Your task to perform on an android device: Open Reddit.com Image 0: 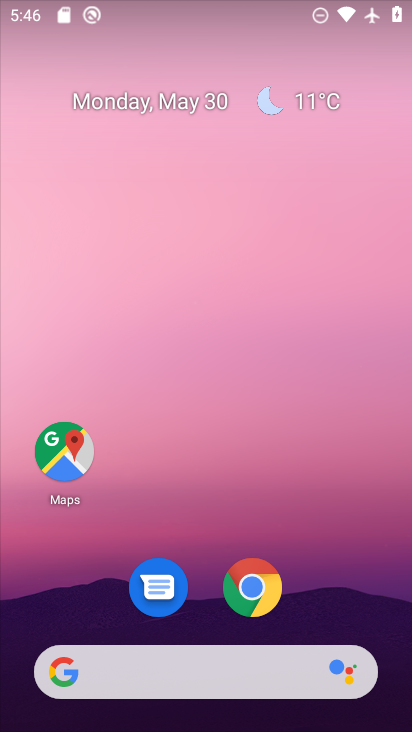
Step 0: drag from (325, 509) to (228, 29)
Your task to perform on an android device: Open Reddit.com Image 1: 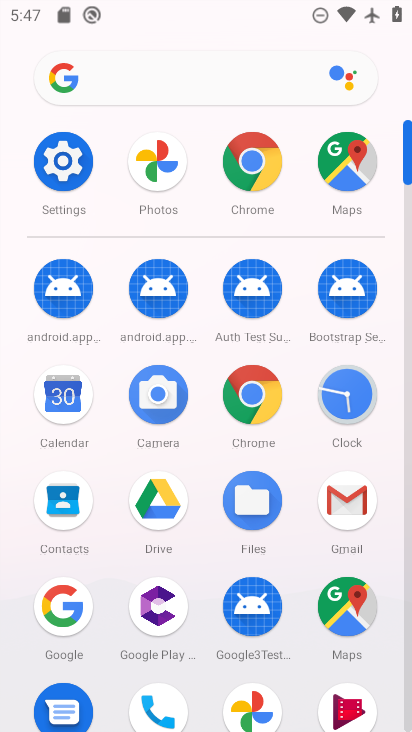
Step 1: click (250, 152)
Your task to perform on an android device: Open Reddit.com Image 2: 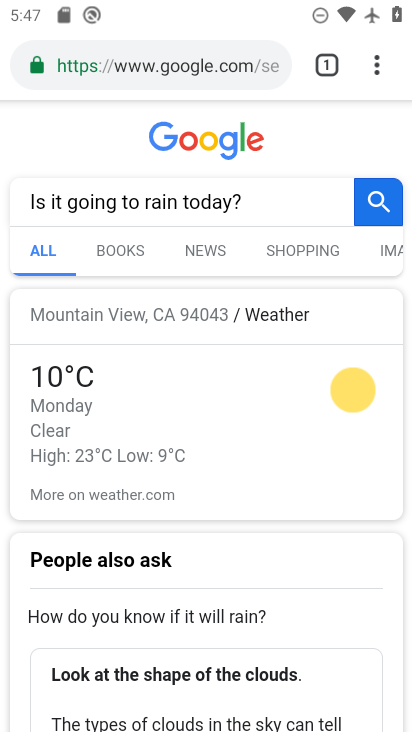
Step 2: click (152, 63)
Your task to perform on an android device: Open Reddit.com Image 3: 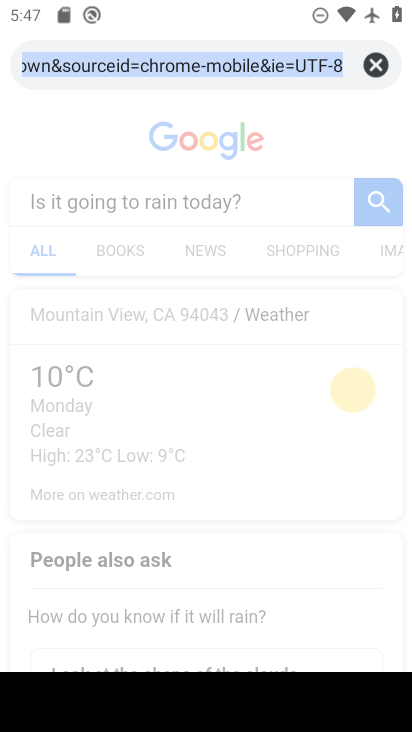
Step 3: click (372, 64)
Your task to perform on an android device: Open Reddit.com Image 4: 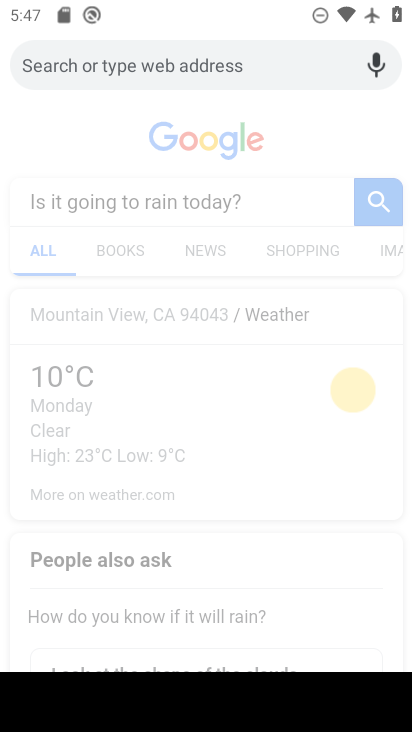
Step 4: type "Reddit.com"
Your task to perform on an android device: Open Reddit.com Image 5: 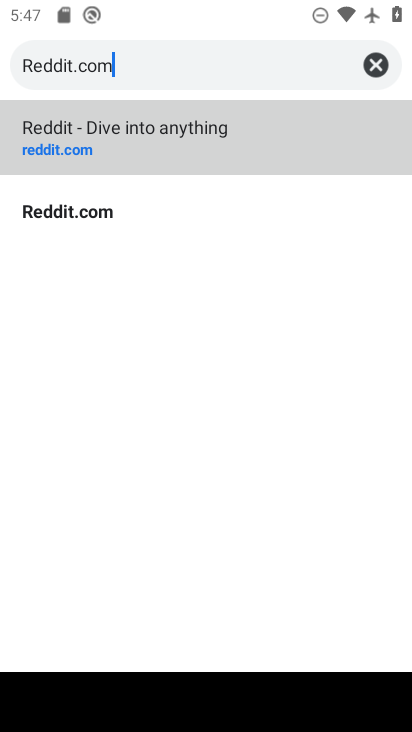
Step 5: click (122, 143)
Your task to perform on an android device: Open Reddit.com Image 6: 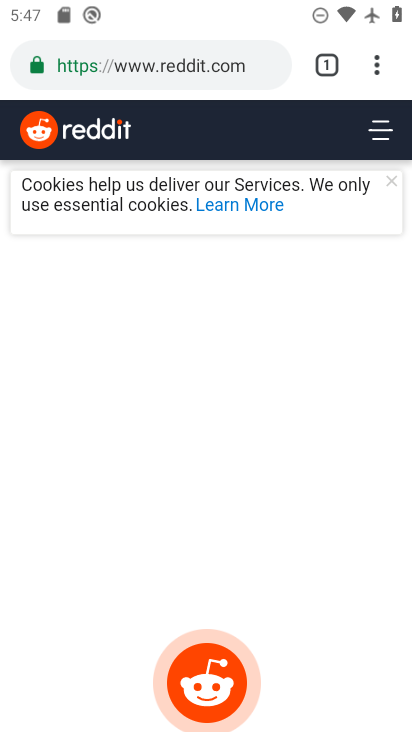
Step 6: task complete